Your task to perform on an android device: turn off smart reply in the gmail app Image 0: 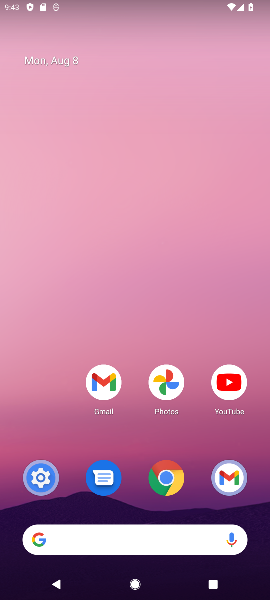
Step 0: drag from (144, 516) to (135, 146)
Your task to perform on an android device: turn off smart reply in the gmail app Image 1: 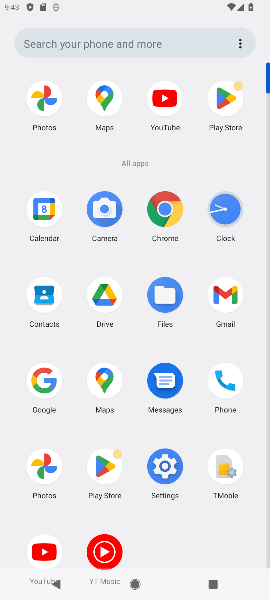
Step 1: click (227, 288)
Your task to perform on an android device: turn off smart reply in the gmail app Image 2: 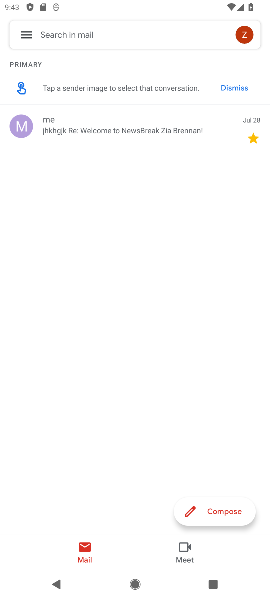
Step 2: click (23, 38)
Your task to perform on an android device: turn off smart reply in the gmail app Image 3: 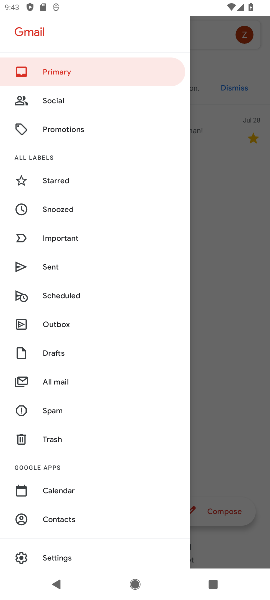
Step 3: drag from (171, 478) to (159, 208)
Your task to perform on an android device: turn off smart reply in the gmail app Image 4: 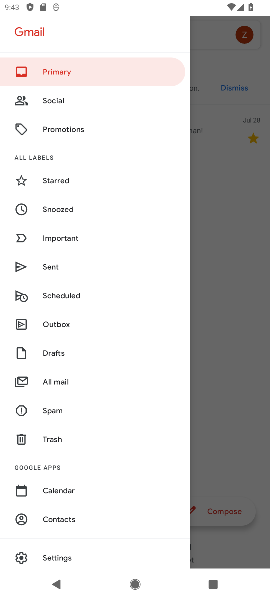
Step 4: click (53, 561)
Your task to perform on an android device: turn off smart reply in the gmail app Image 5: 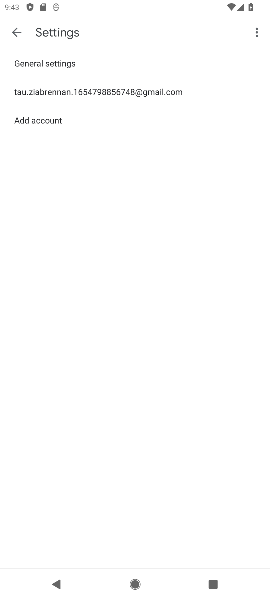
Step 5: click (57, 94)
Your task to perform on an android device: turn off smart reply in the gmail app Image 6: 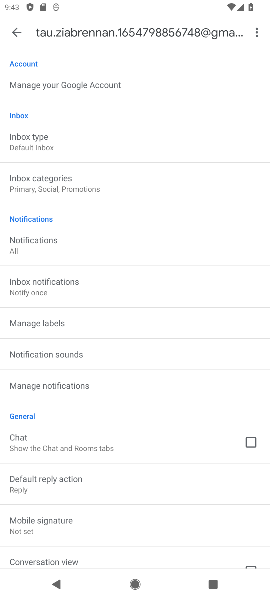
Step 6: drag from (149, 444) to (143, 140)
Your task to perform on an android device: turn off smart reply in the gmail app Image 7: 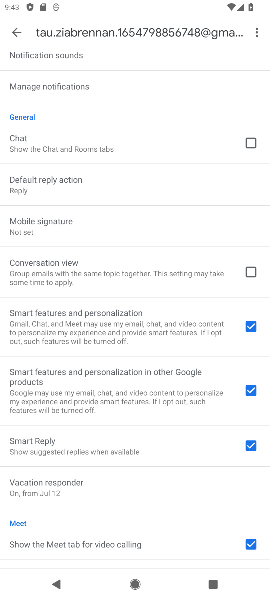
Step 7: click (251, 452)
Your task to perform on an android device: turn off smart reply in the gmail app Image 8: 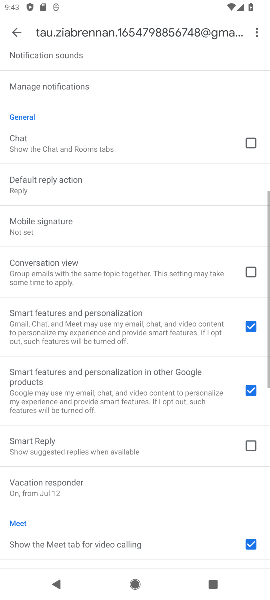
Step 8: task complete